Your task to perform on an android device: change keyboard looks Image 0: 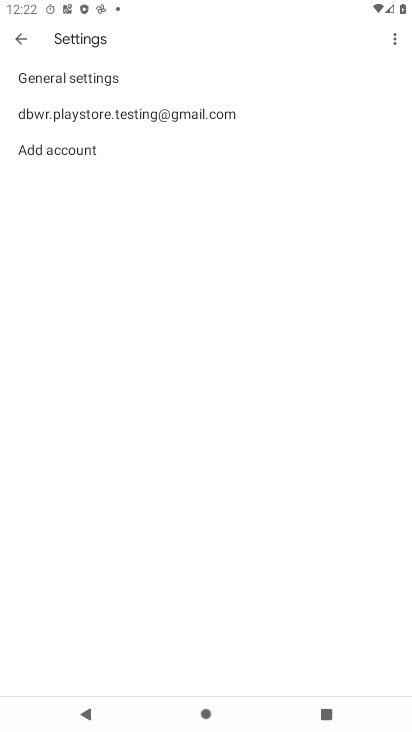
Step 0: press home button
Your task to perform on an android device: change keyboard looks Image 1: 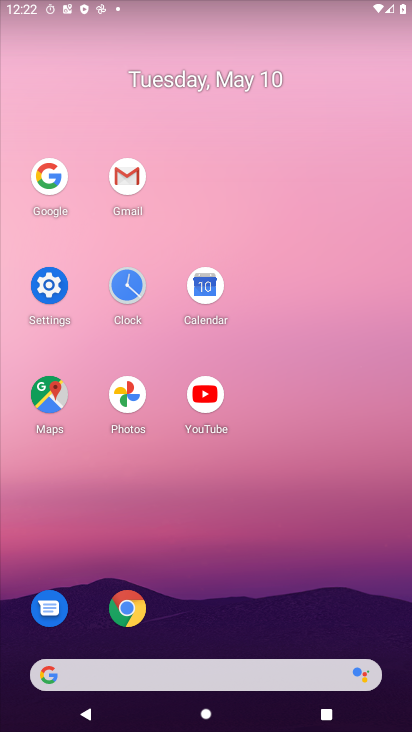
Step 1: click (27, 291)
Your task to perform on an android device: change keyboard looks Image 2: 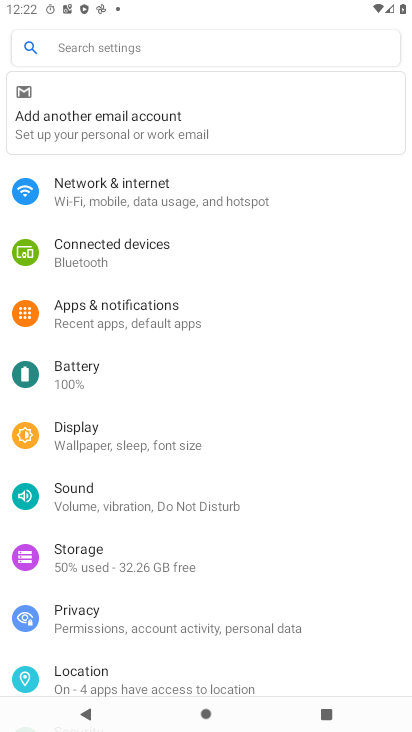
Step 2: drag from (280, 607) to (282, 233)
Your task to perform on an android device: change keyboard looks Image 3: 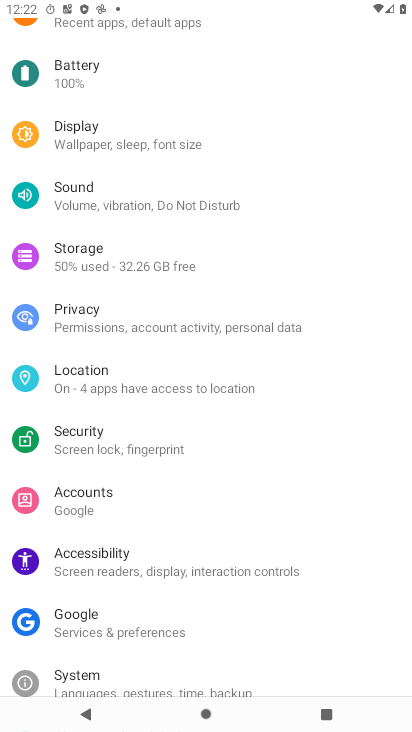
Step 3: click (132, 685)
Your task to perform on an android device: change keyboard looks Image 4: 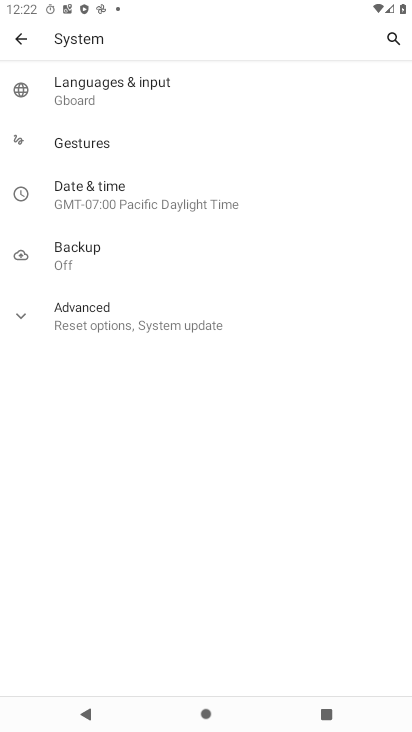
Step 4: click (87, 85)
Your task to perform on an android device: change keyboard looks Image 5: 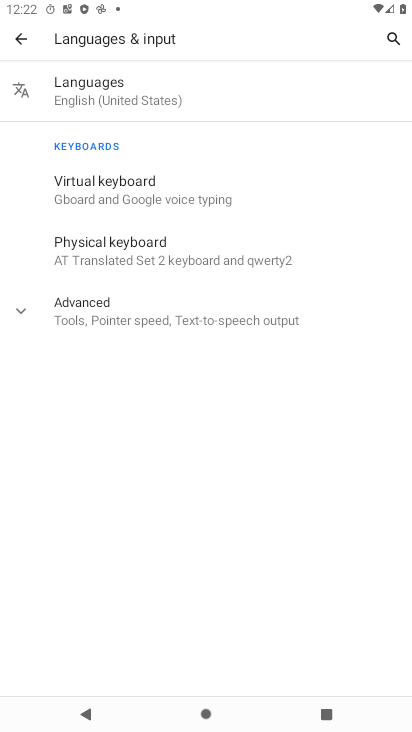
Step 5: click (136, 205)
Your task to perform on an android device: change keyboard looks Image 6: 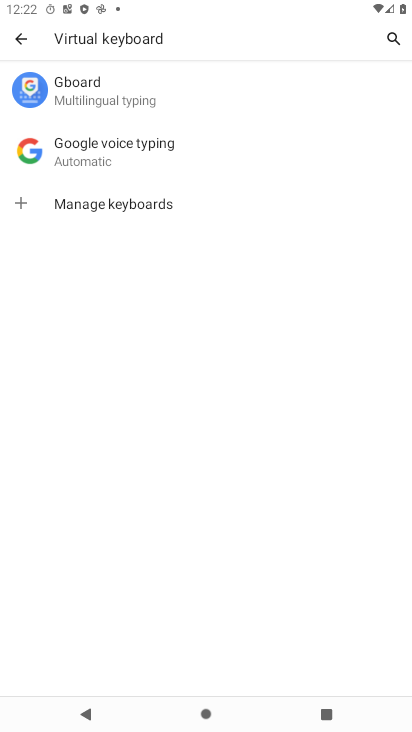
Step 6: click (139, 103)
Your task to perform on an android device: change keyboard looks Image 7: 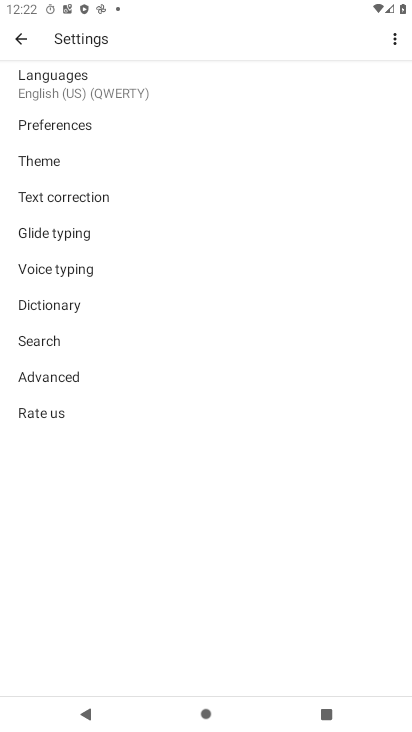
Step 7: click (36, 160)
Your task to perform on an android device: change keyboard looks Image 8: 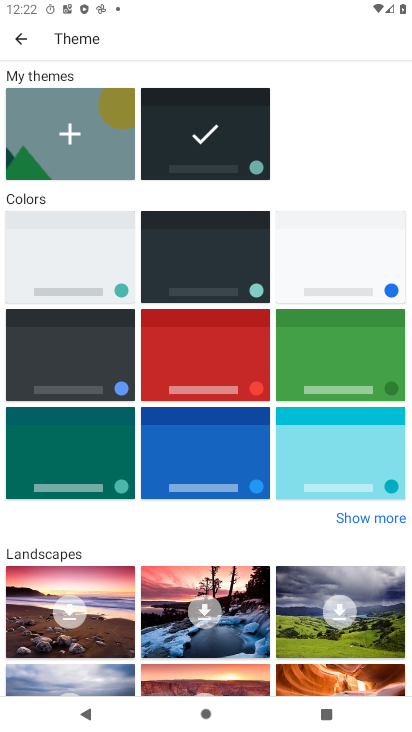
Step 8: click (252, 394)
Your task to perform on an android device: change keyboard looks Image 9: 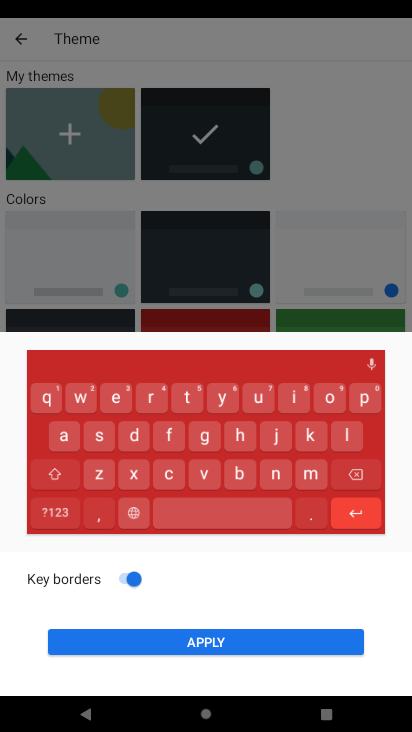
Step 9: click (197, 636)
Your task to perform on an android device: change keyboard looks Image 10: 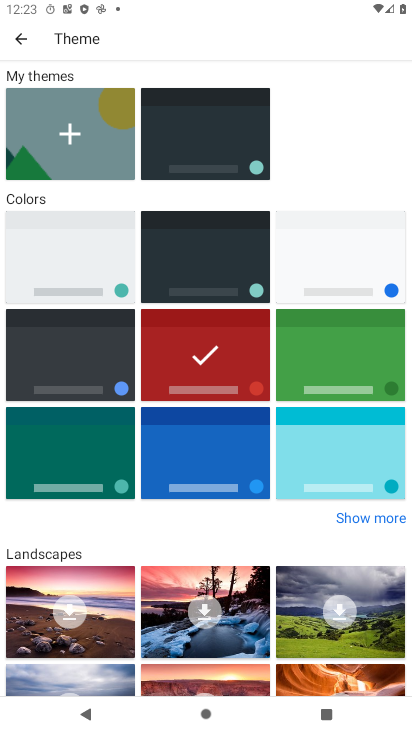
Step 10: task complete